Your task to perform on an android device: Open Amazon Image 0: 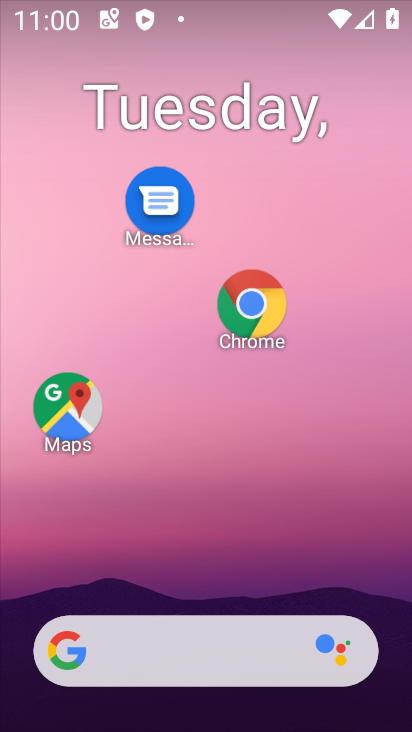
Step 0: drag from (200, 601) to (306, 229)
Your task to perform on an android device: Open Amazon Image 1: 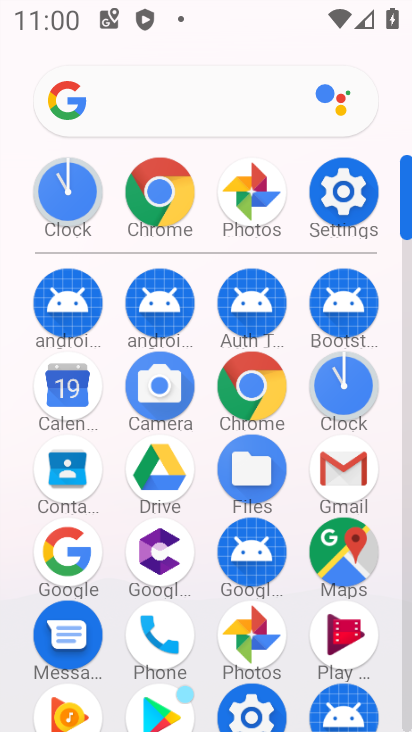
Step 1: click (242, 387)
Your task to perform on an android device: Open Amazon Image 2: 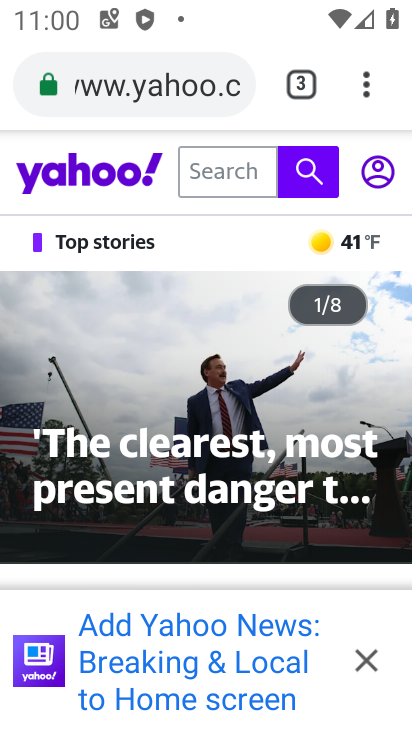
Step 2: click (365, 77)
Your task to perform on an android device: Open Amazon Image 3: 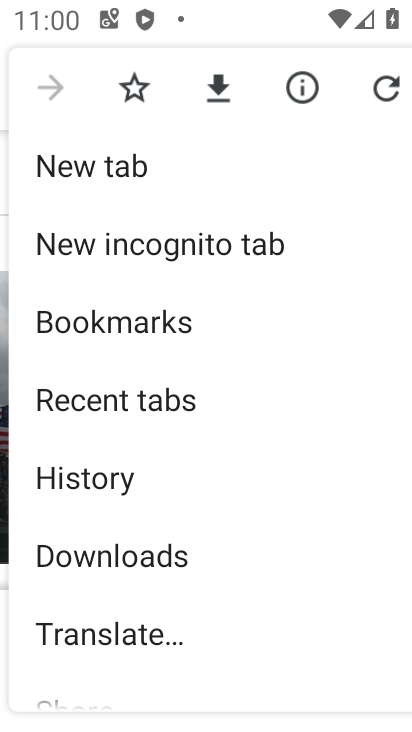
Step 3: click (224, 166)
Your task to perform on an android device: Open Amazon Image 4: 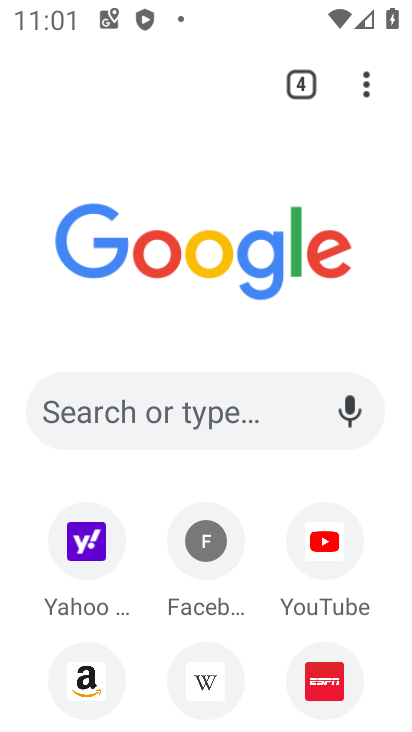
Step 4: click (88, 679)
Your task to perform on an android device: Open Amazon Image 5: 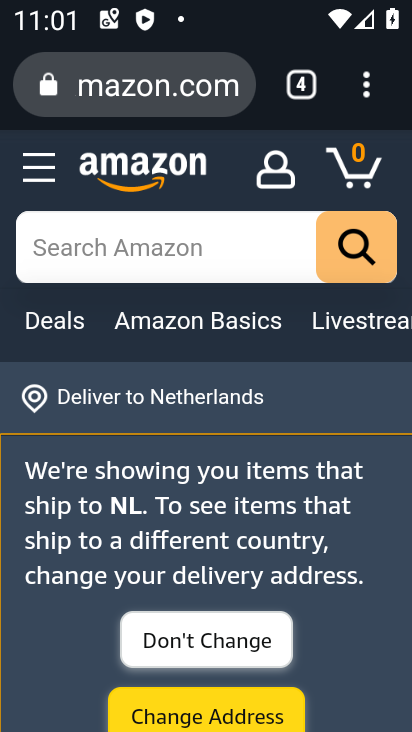
Step 5: task complete